Your task to perform on an android device: toggle airplane mode Image 0: 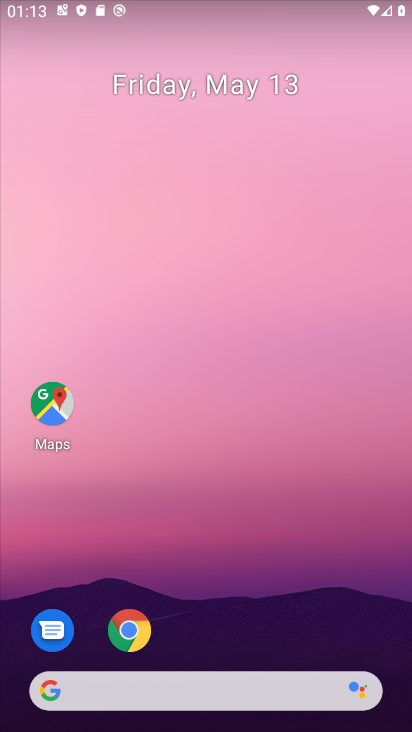
Step 0: drag from (192, 715) to (223, 252)
Your task to perform on an android device: toggle airplane mode Image 1: 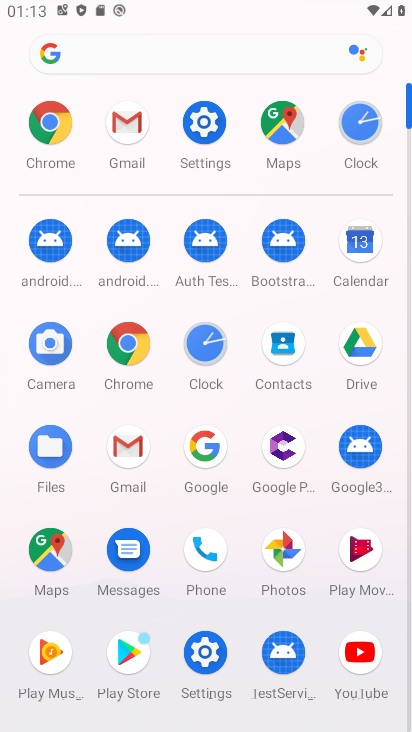
Step 1: click (219, 646)
Your task to perform on an android device: toggle airplane mode Image 2: 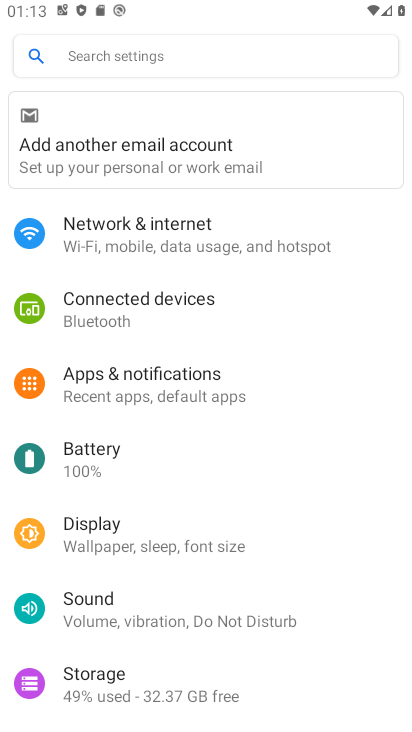
Step 2: click (91, 242)
Your task to perform on an android device: toggle airplane mode Image 3: 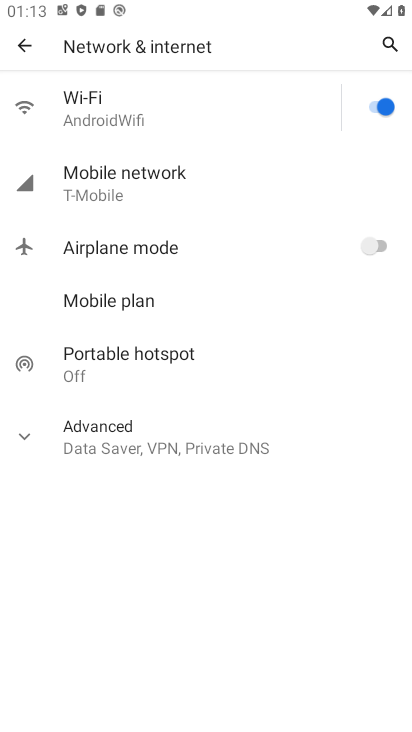
Step 3: click (224, 255)
Your task to perform on an android device: toggle airplane mode Image 4: 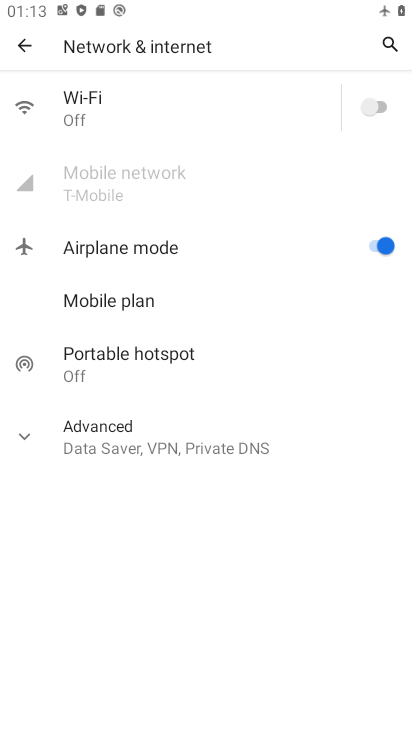
Step 4: click (222, 257)
Your task to perform on an android device: toggle airplane mode Image 5: 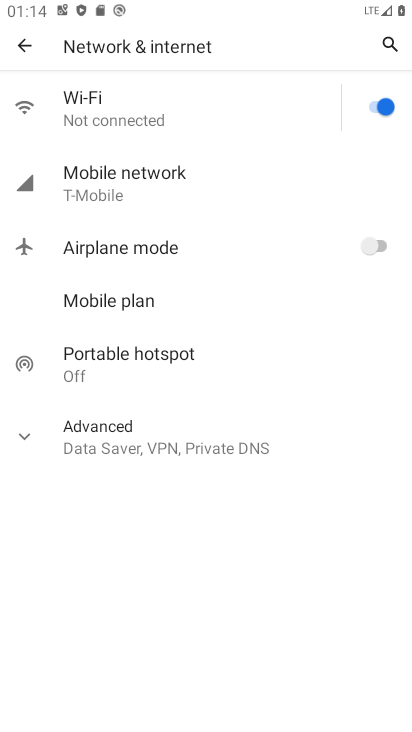
Step 5: task complete